Your task to perform on an android device: Search for razer blade on target.com, select the first entry, and add it to the cart. Image 0: 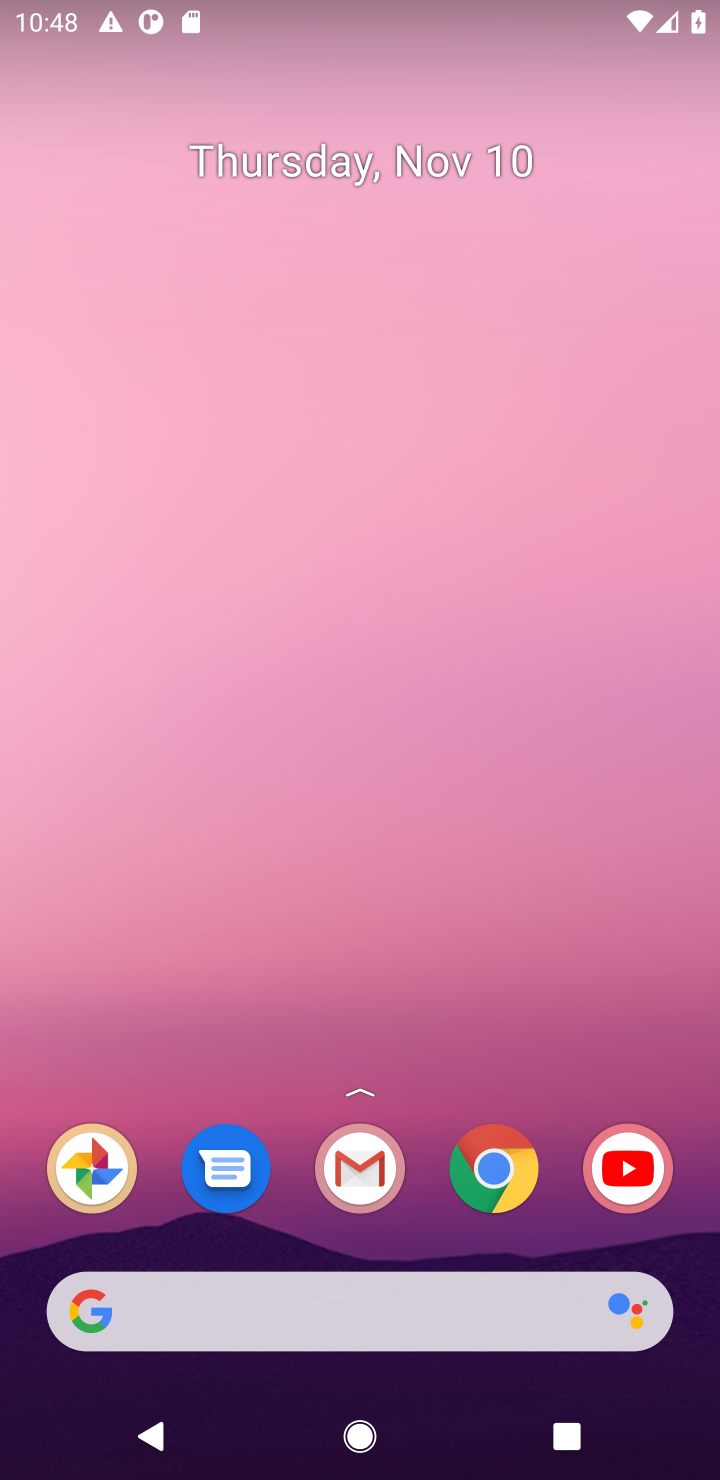
Step 0: click (499, 1166)
Your task to perform on an android device: Search for razer blade on target.com, select the first entry, and add it to the cart. Image 1: 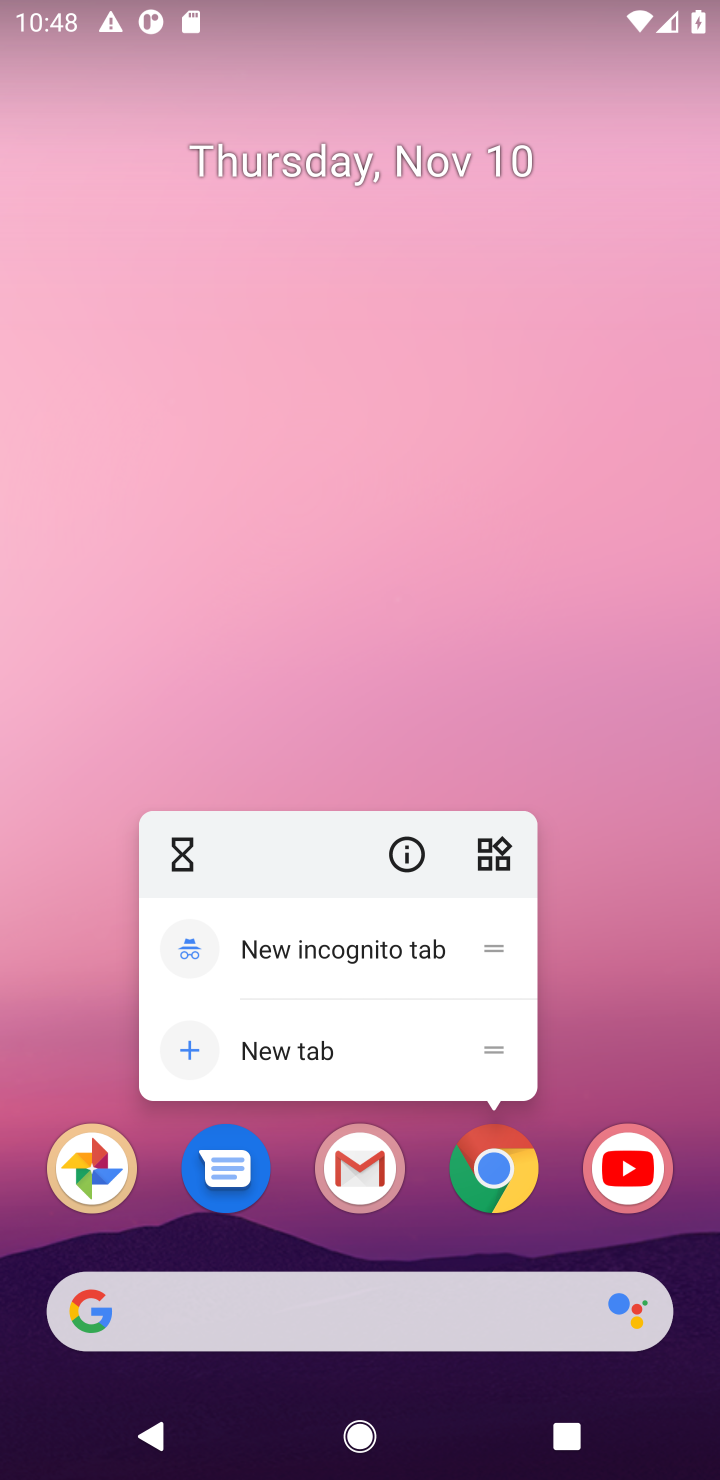
Step 1: click (499, 1166)
Your task to perform on an android device: Search for razer blade on target.com, select the first entry, and add it to the cart. Image 2: 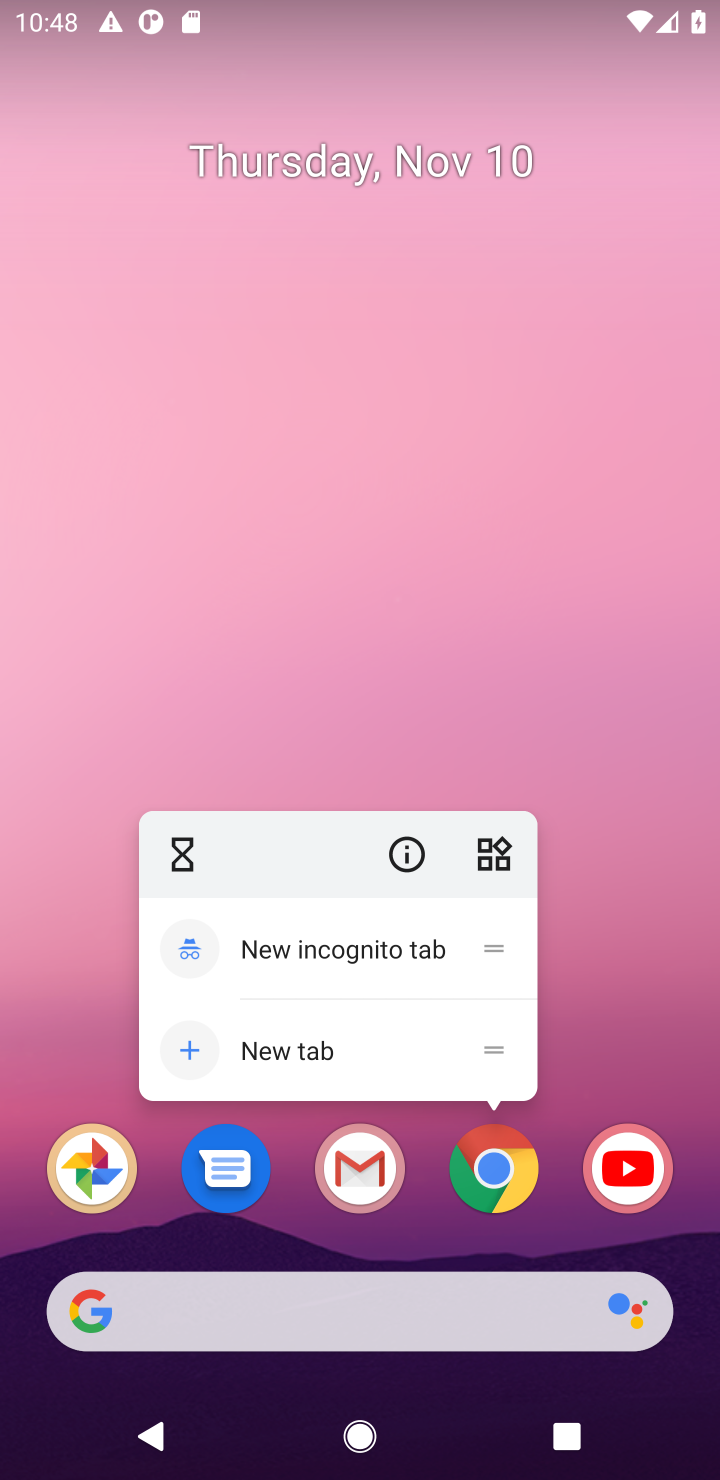
Step 2: click (499, 1166)
Your task to perform on an android device: Search for razer blade on target.com, select the first entry, and add it to the cart. Image 3: 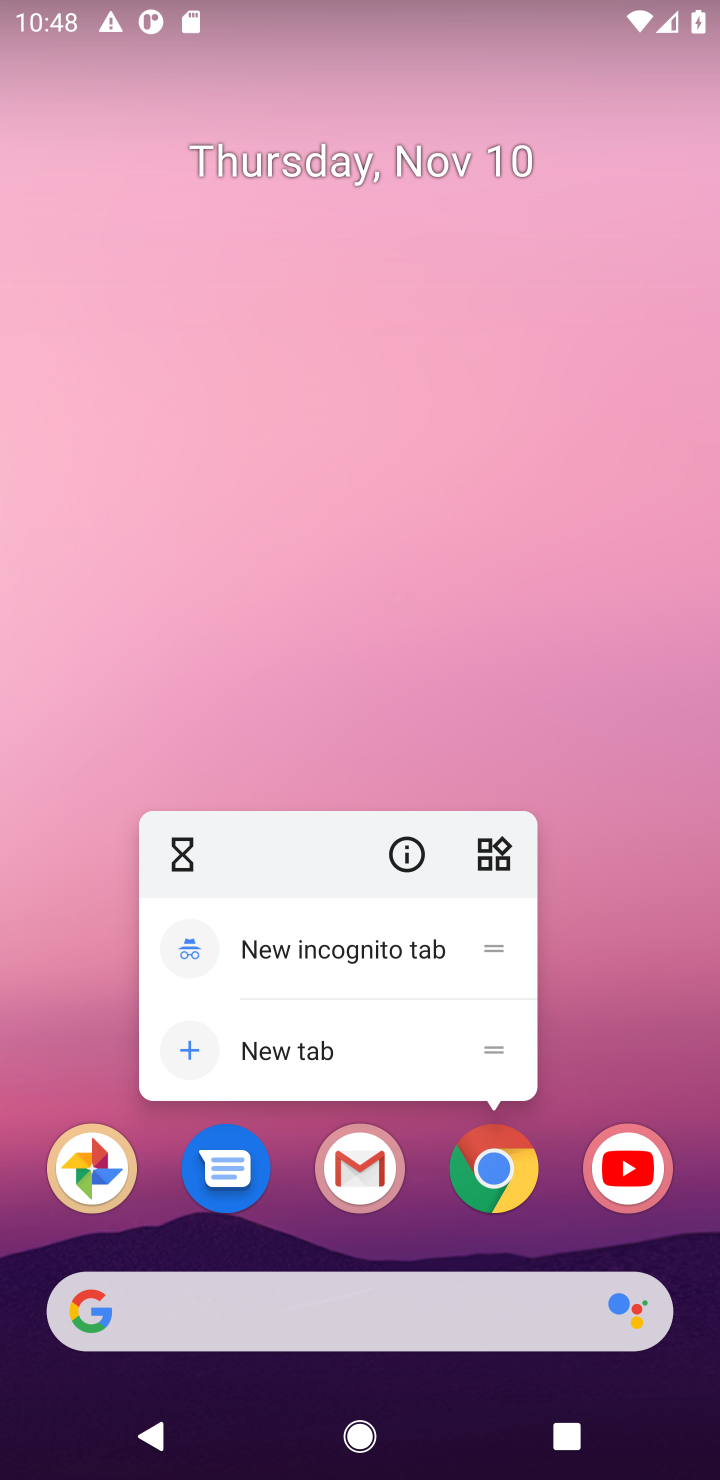
Step 3: click (499, 1166)
Your task to perform on an android device: Search for razer blade on target.com, select the first entry, and add it to the cart. Image 4: 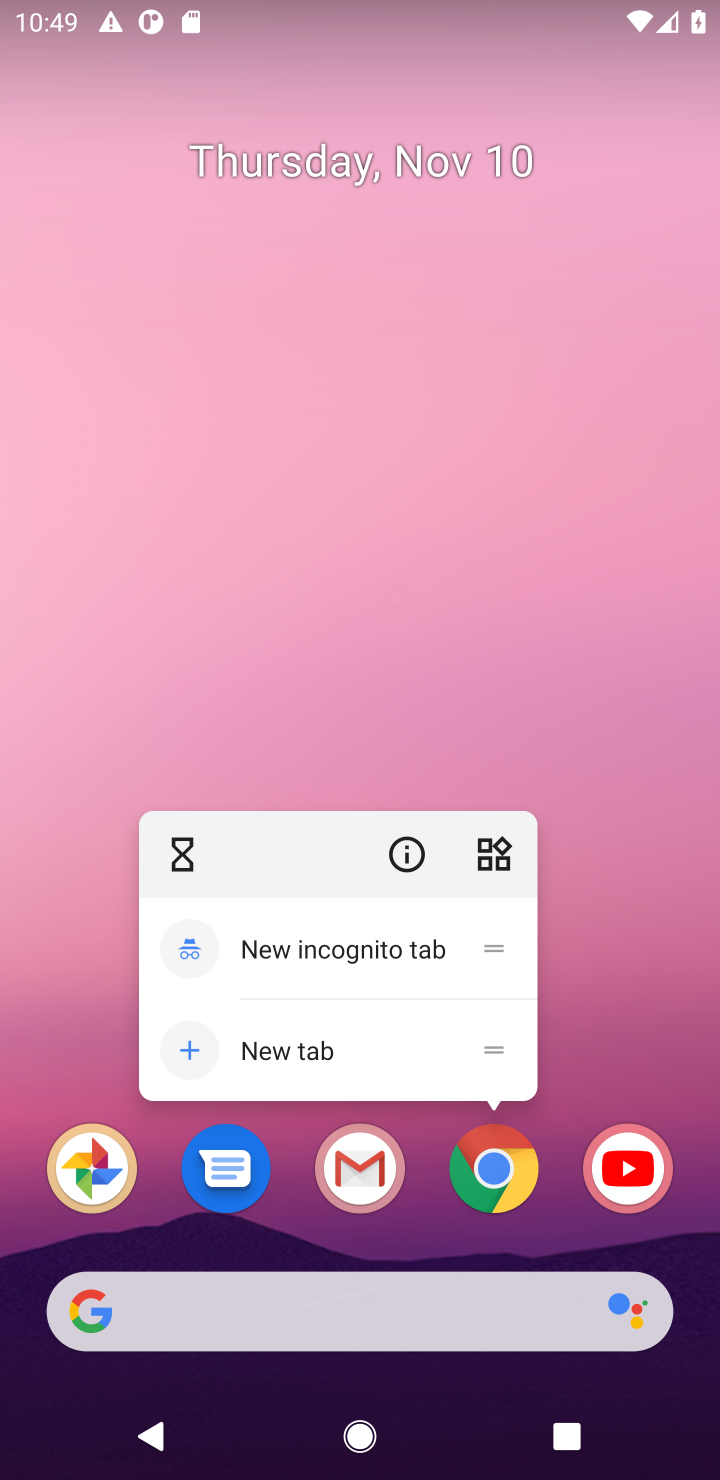
Step 4: click (499, 1166)
Your task to perform on an android device: Search for razer blade on target.com, select the first entry, and add it to the cart. Image 5: 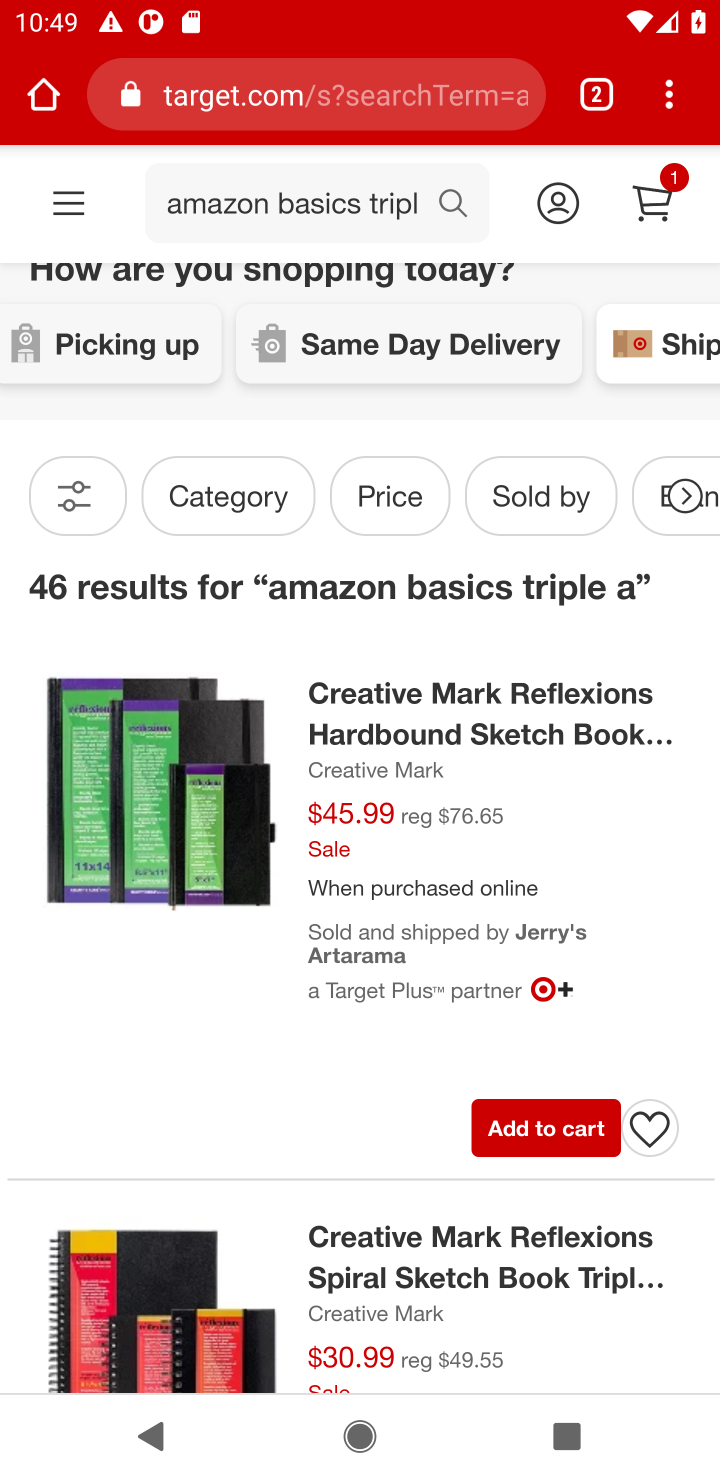
Step 5: click (382, 199)
Your task to perform on an android device: Search for razer blade on target.com, select the first entry, and add it to the cart. Image 6: 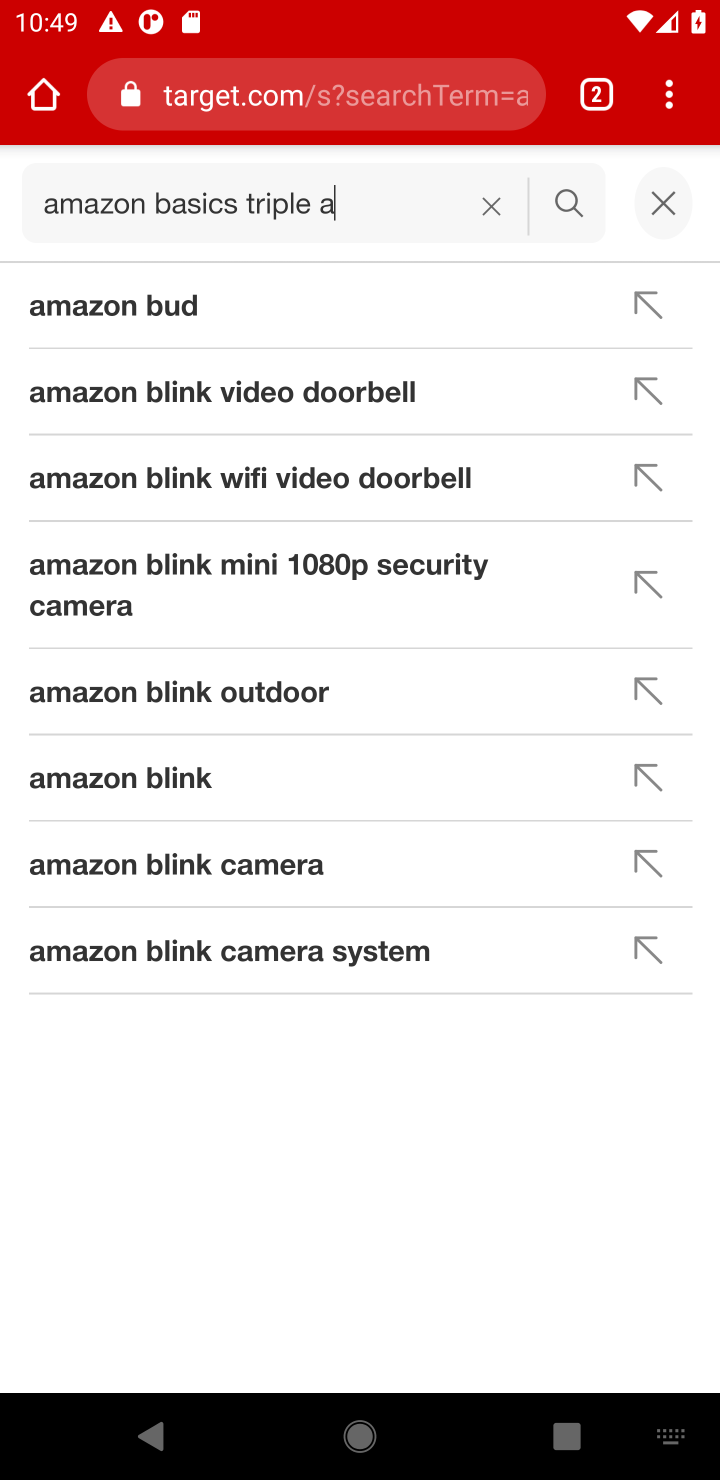
Step 6: click (499, 209)
Your task to perform on an android device: Search for razer blade on target.com, select the first entry, and add it to the cart. Image 7: 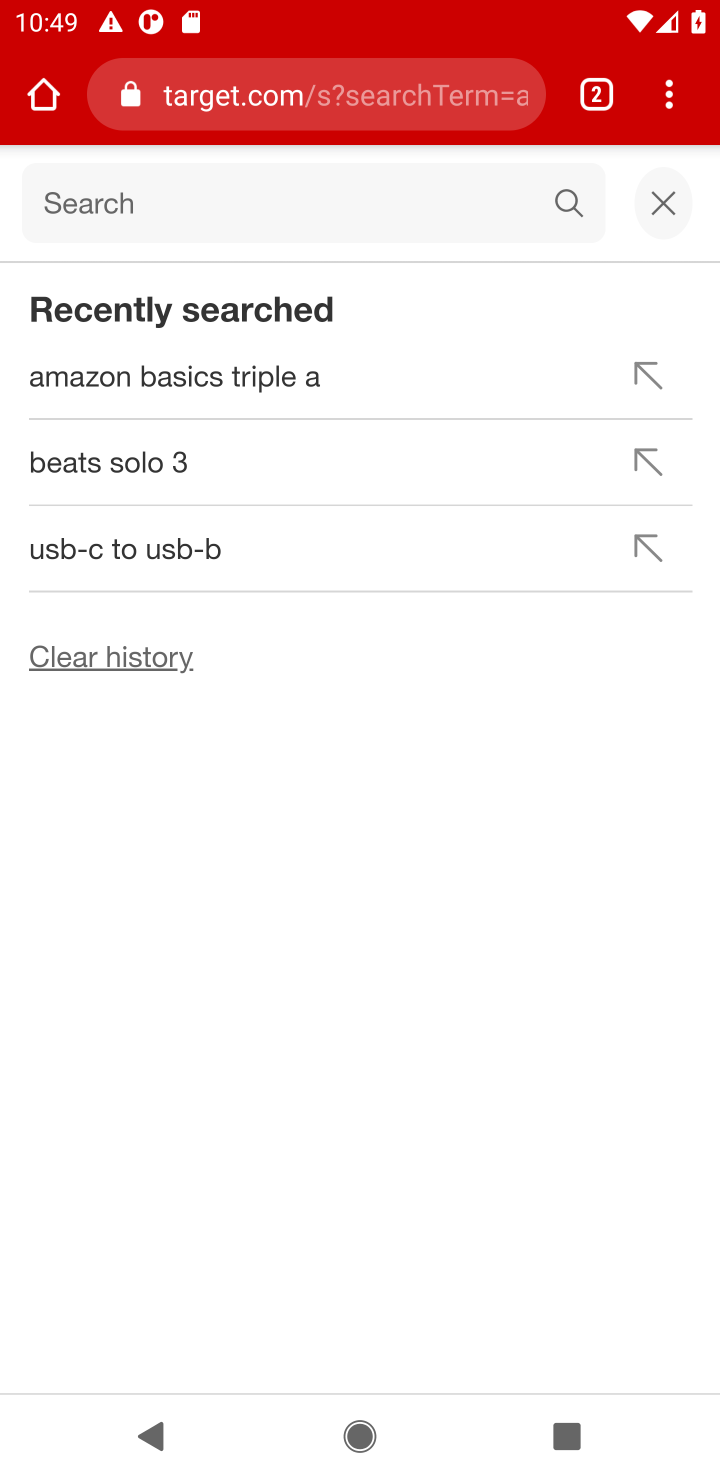
Step 7: type "razer blade"
Your task to perform on an android device: Search for razer blade on target.com, select the first entry, and add it to the cart. Image 8: 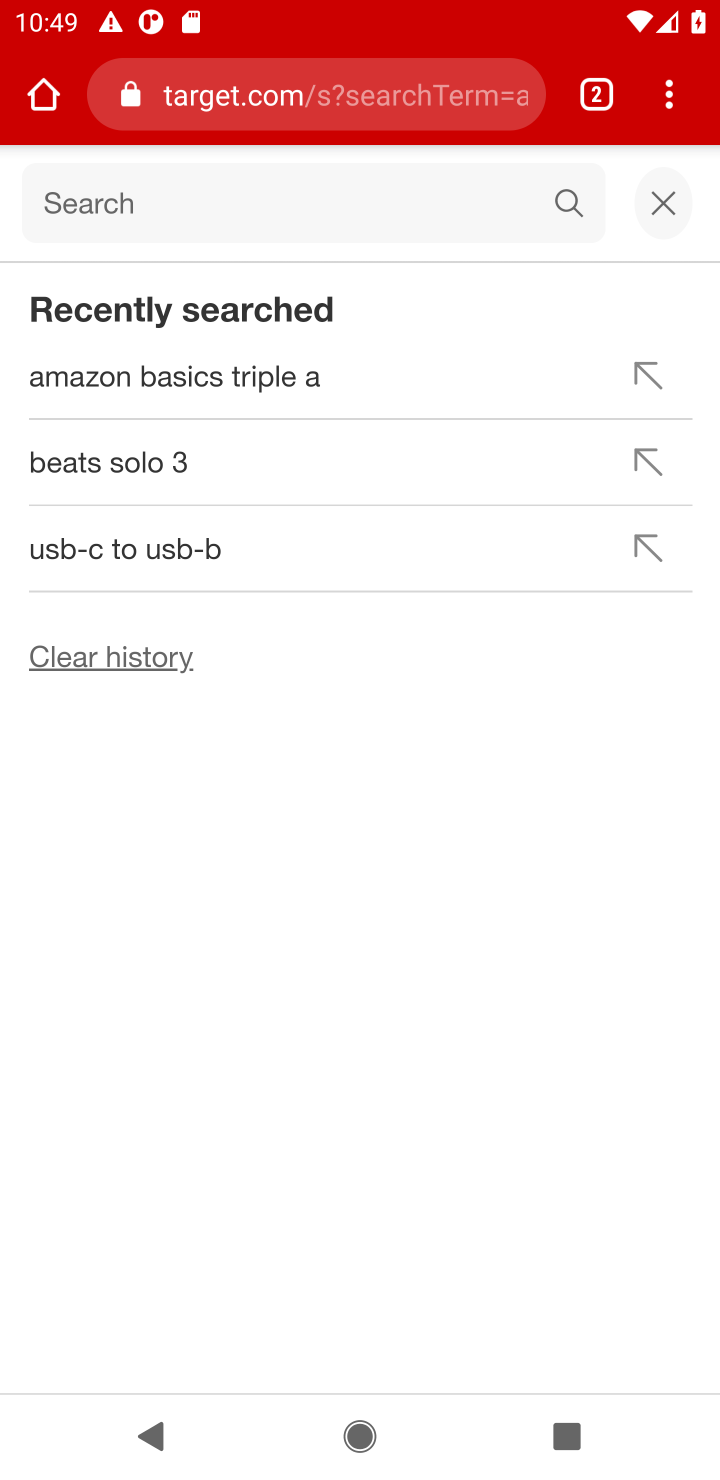
Step 8: click (197, 202)
Your task to perform on an android device: Search for razer blade on target.com, select the first entry, and add it to the cart. Image 9: 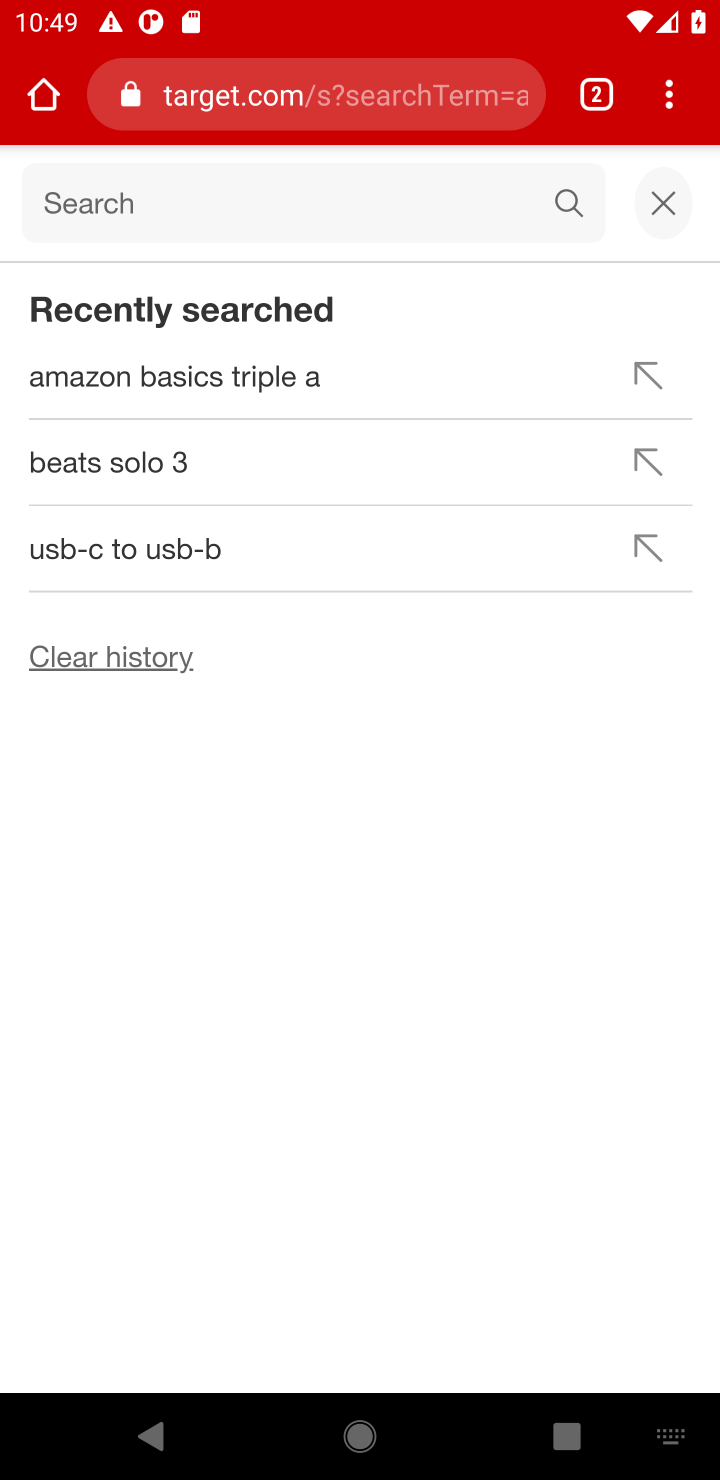
Step 9: type "razer blade"
Your task to perform on an android device: Search for razer blade on target.com, select the first entry, and add it to the cart. Image 10: 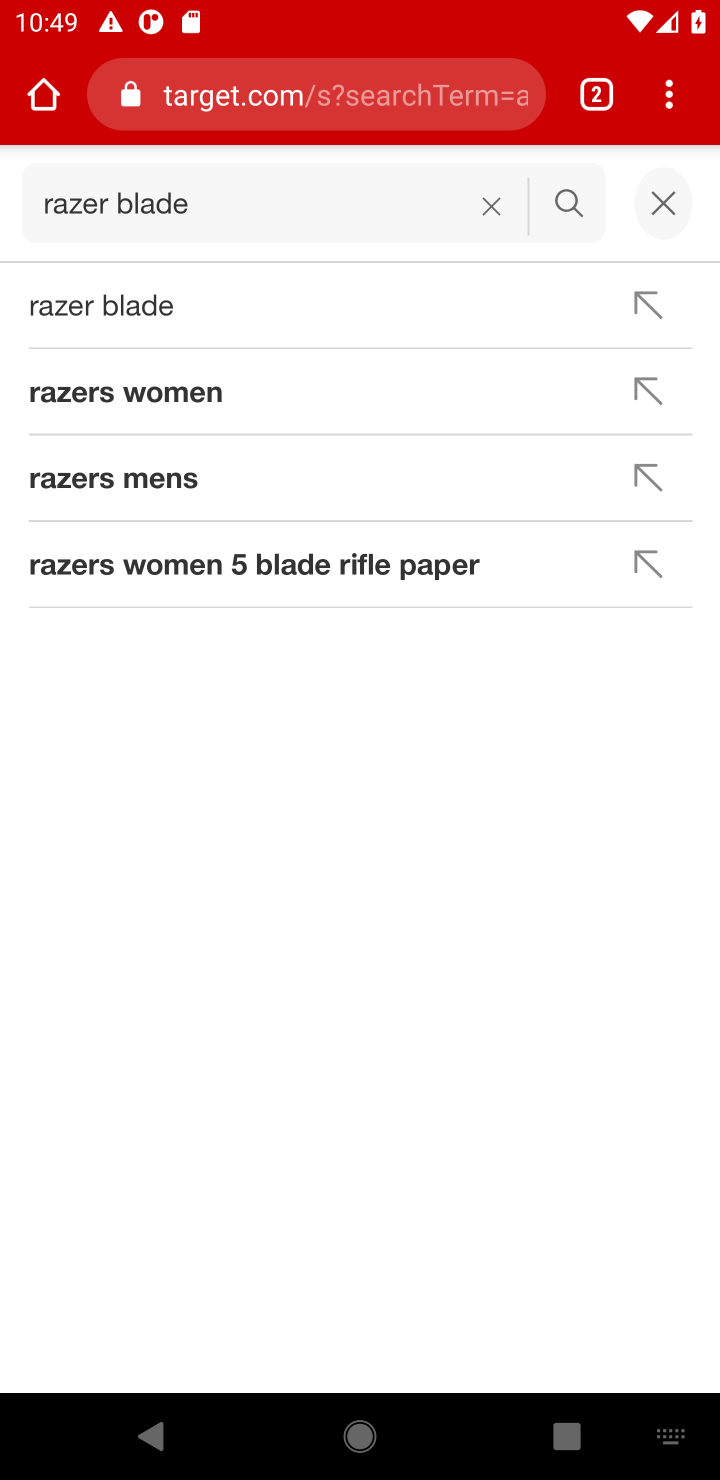
Step 10: click (85, 305)
Your task to perform on an android device: Search for razer blade on target.com, select the first entry, and add it to the cart. Image 11: 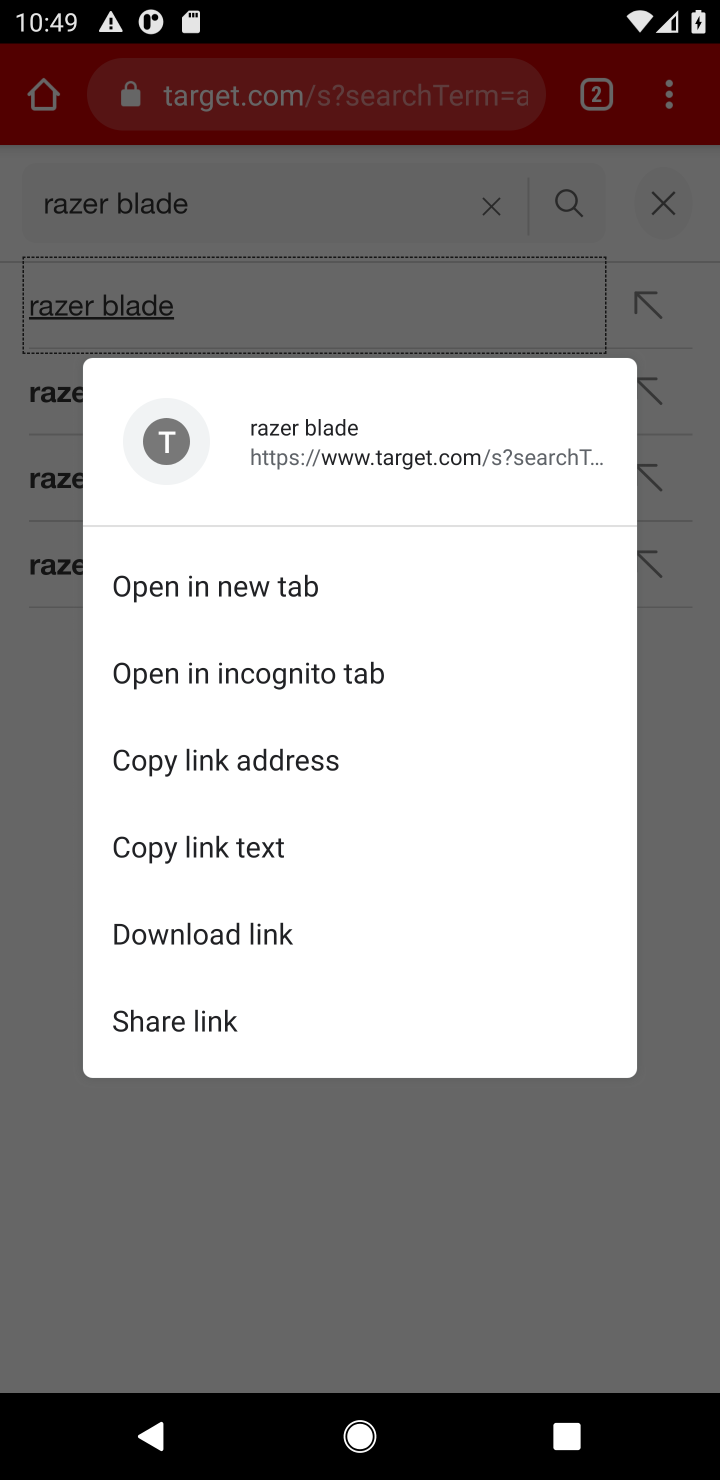
Step 11: click (92, 841)
Your task to perform on an android device: Search for razer blade on target.com, select the first entry, and add it to the cart. Image 12: 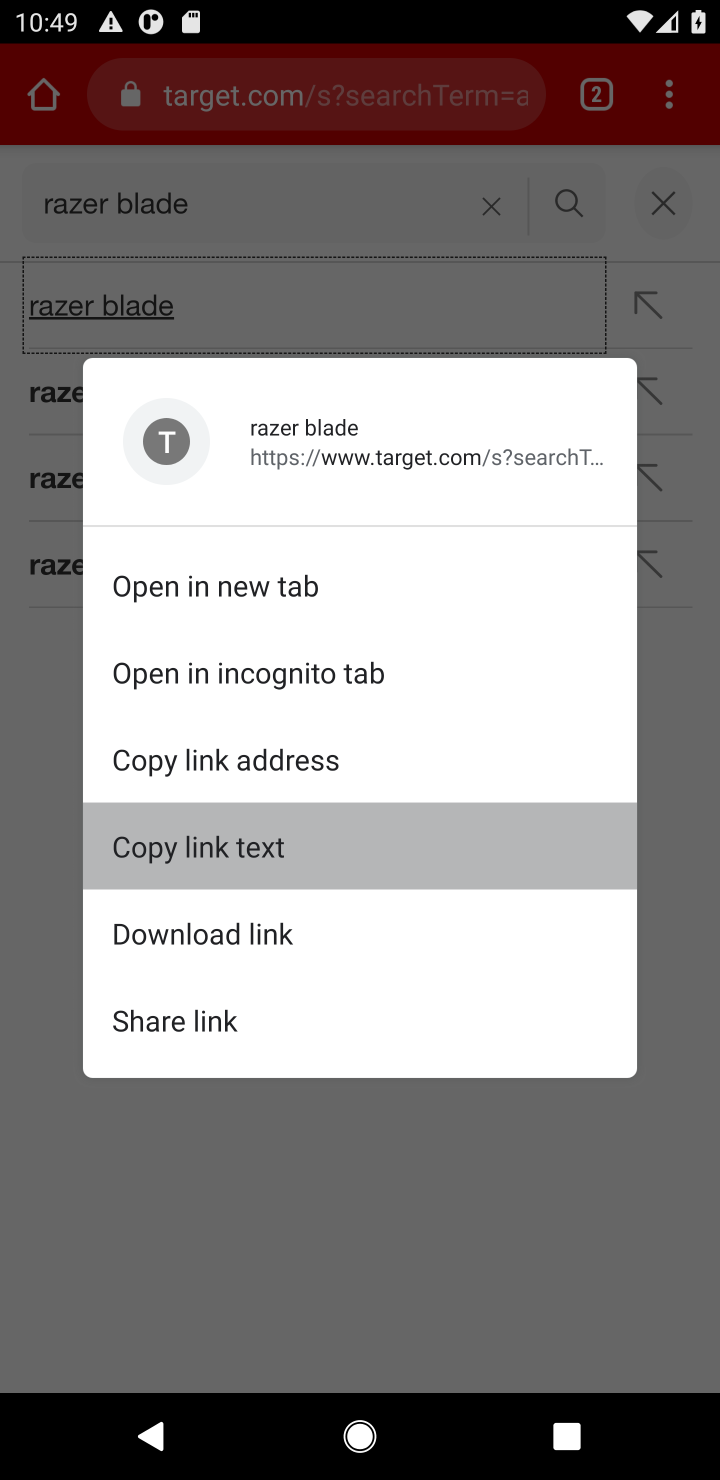
Step 12: click (44, 767)
Your task to perform on an android device: Search for razer blade on target.com, select the first entry, and add it to the cart. Image 13: 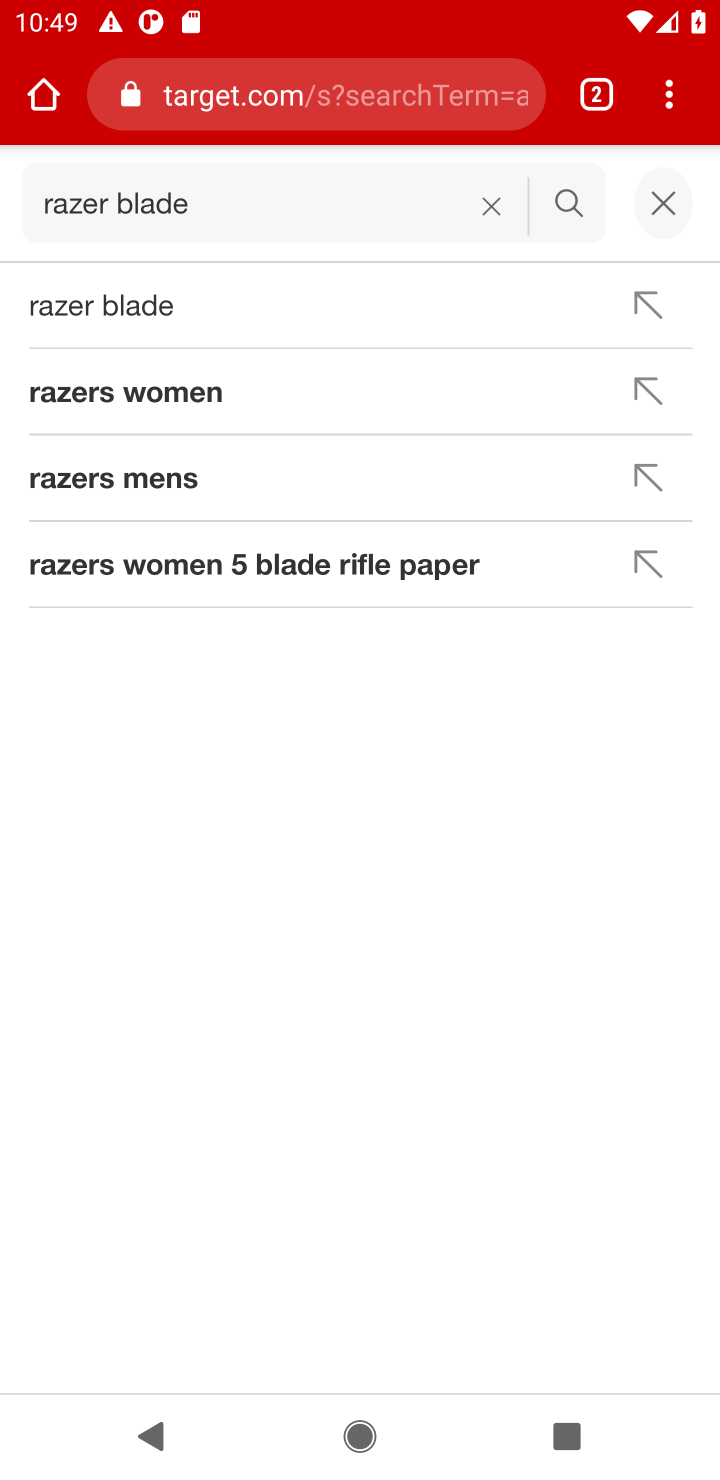
Step 13: click (109, 308)
Your task to perform on an android device: Search for razer blade on target.com, select the first entry, and add it to the cart. Image 14: 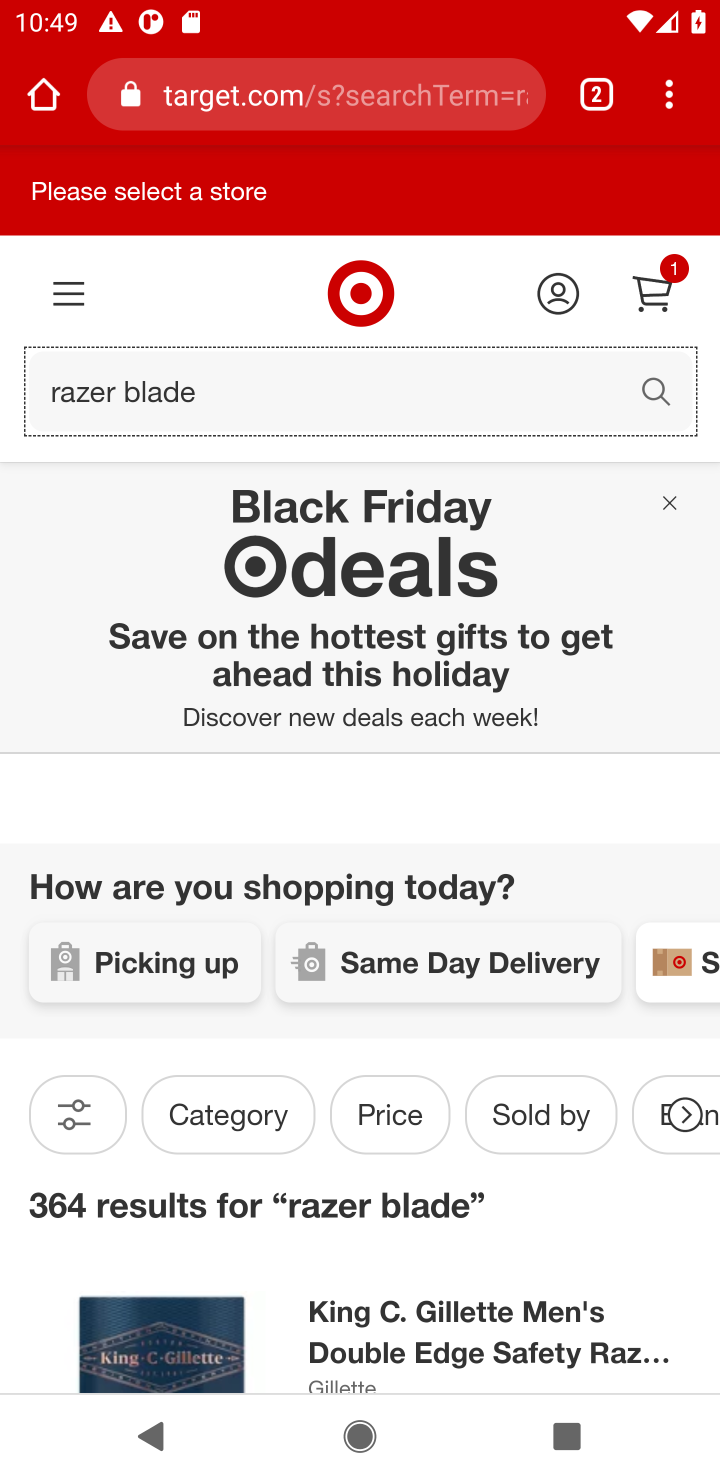
Step 14: task complete